Your task to perform on an android device: install app "Move to iOS" Image 0: 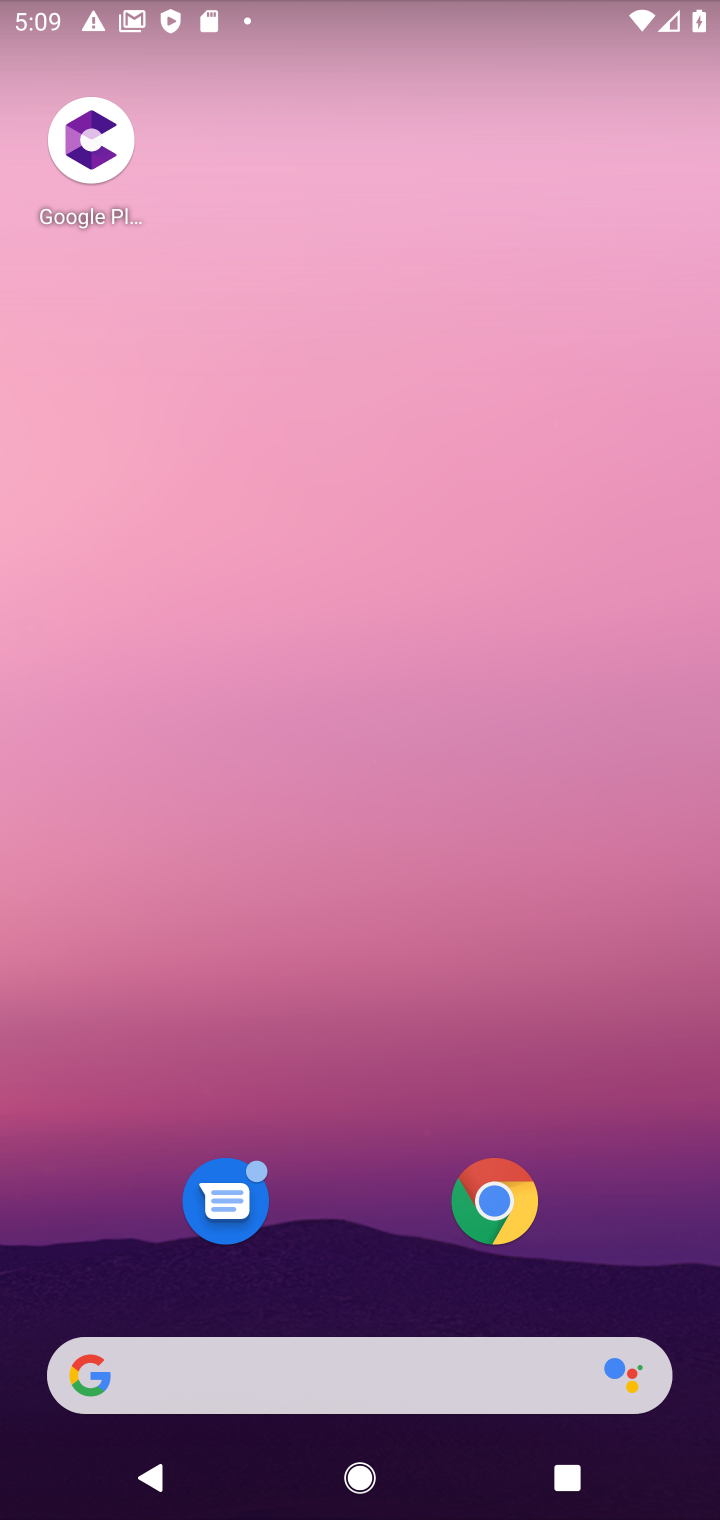
Step 0: drag from (367, 1310) to (405, 181)
Your task to perform on an android device: install app "Move to iOS" Image 1: 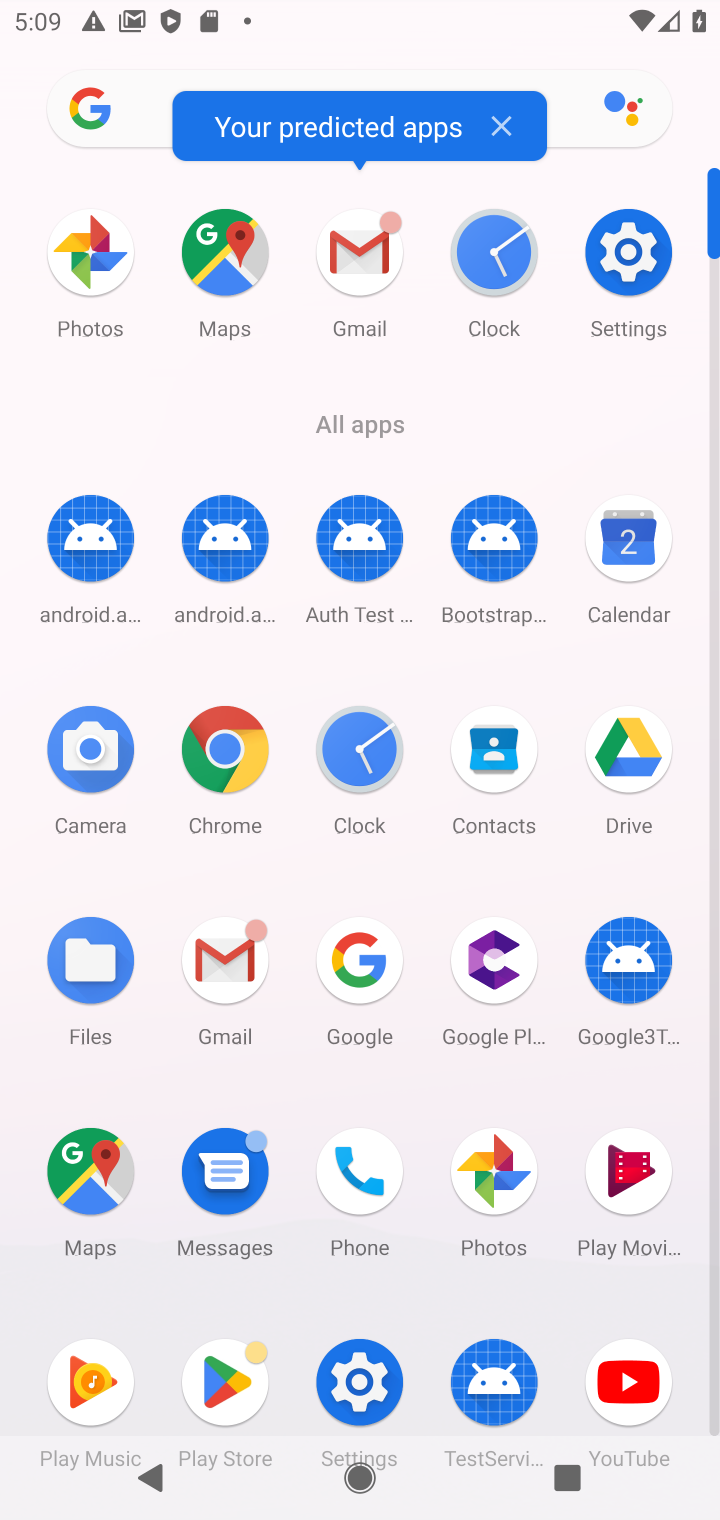
Step 1: click (222, 1385)
Your task to perform on an android device: install app "Move to iOS" Image 2: 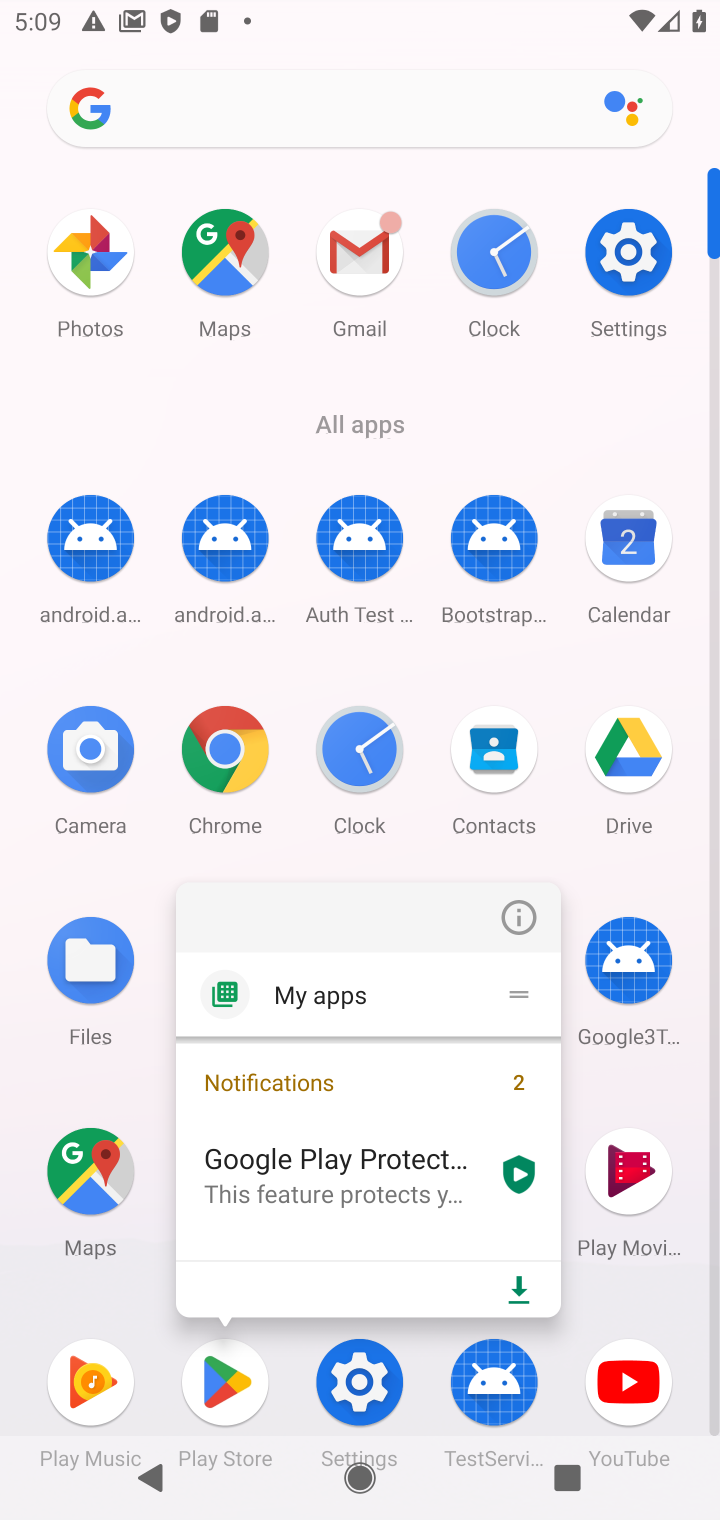
Step 2: click (224, 1402)
Your task to perform on an android device: install app "Move to iOS" Image 3: 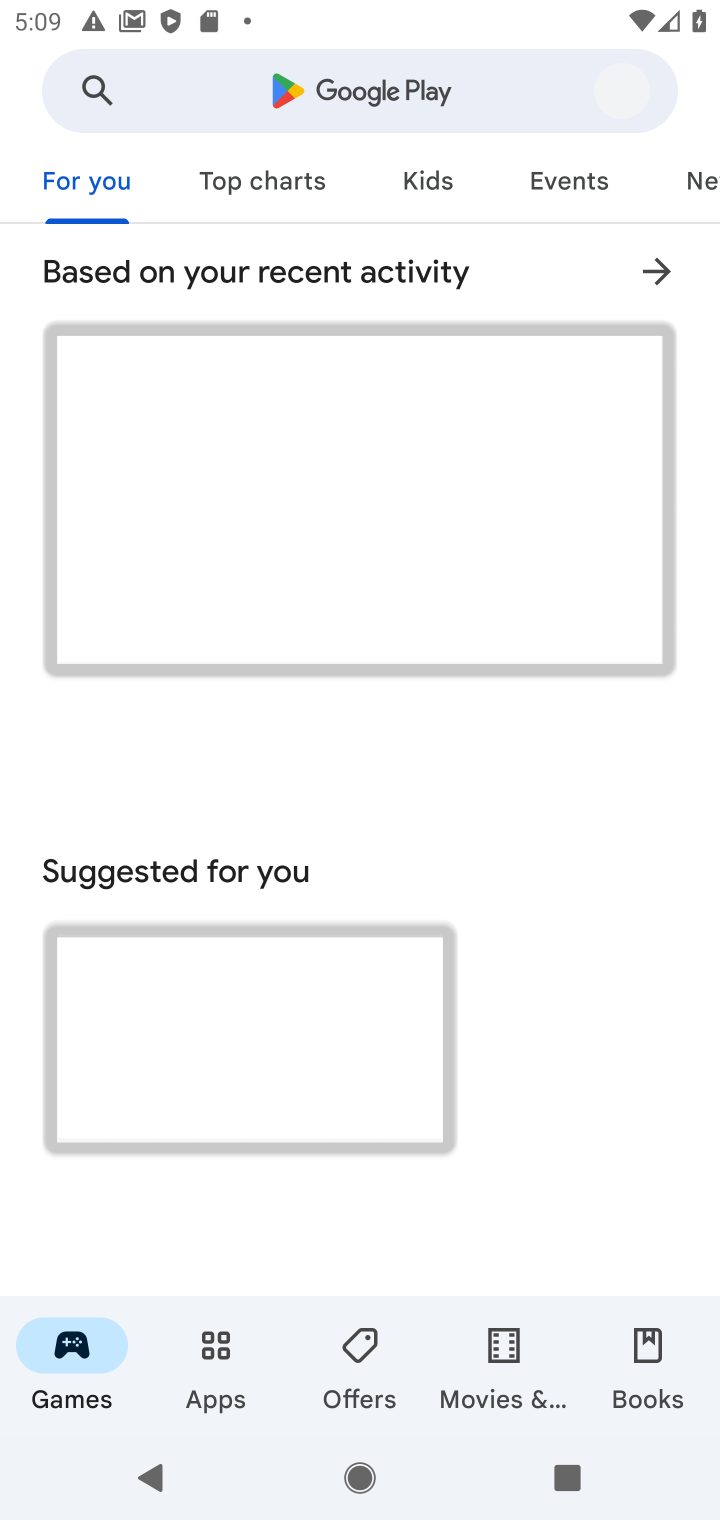
Step 3: click (368, 78)
Your task to perform on an android device: install app "Move to iOS" Image 4: 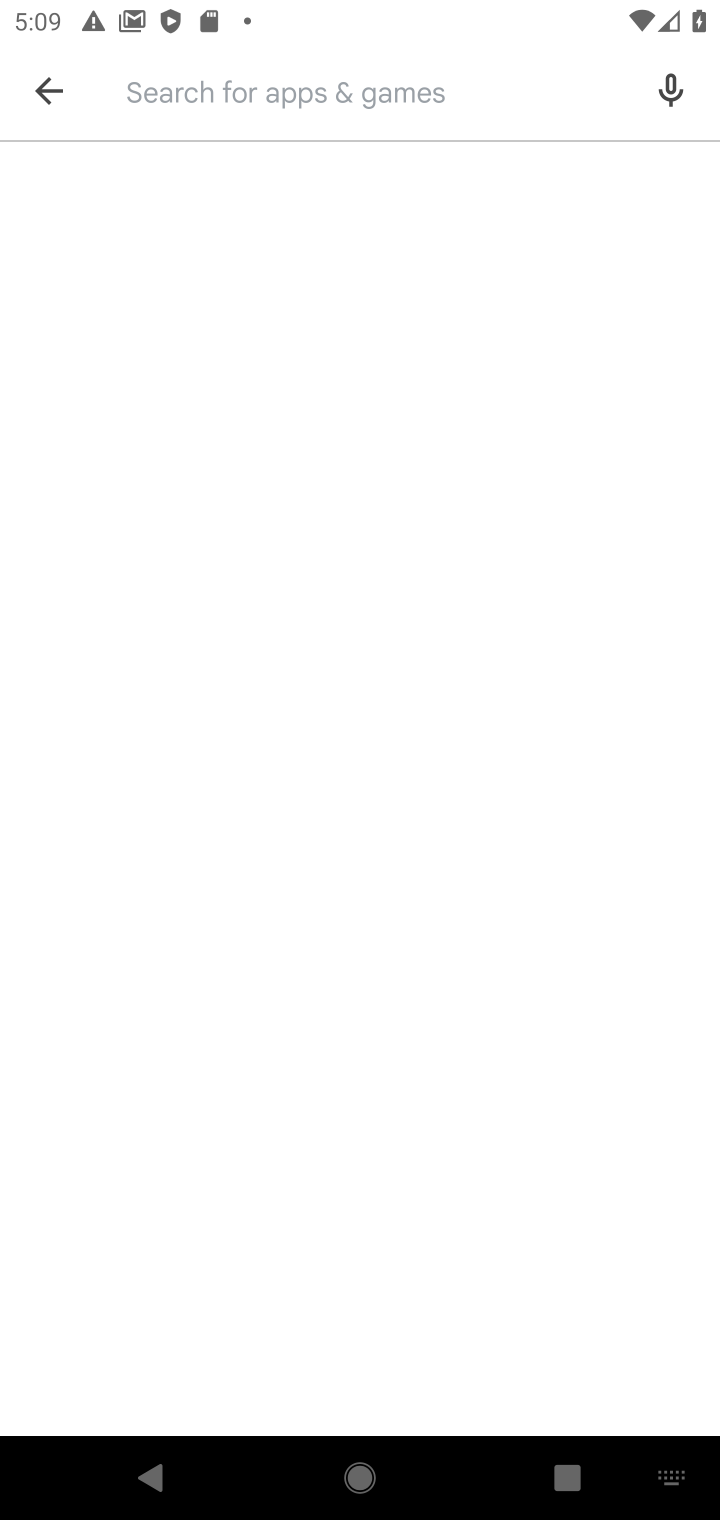
Step 4: type "Move to iOS"
Your task to perform on an android device: install app "Move to iOS" Image 5: 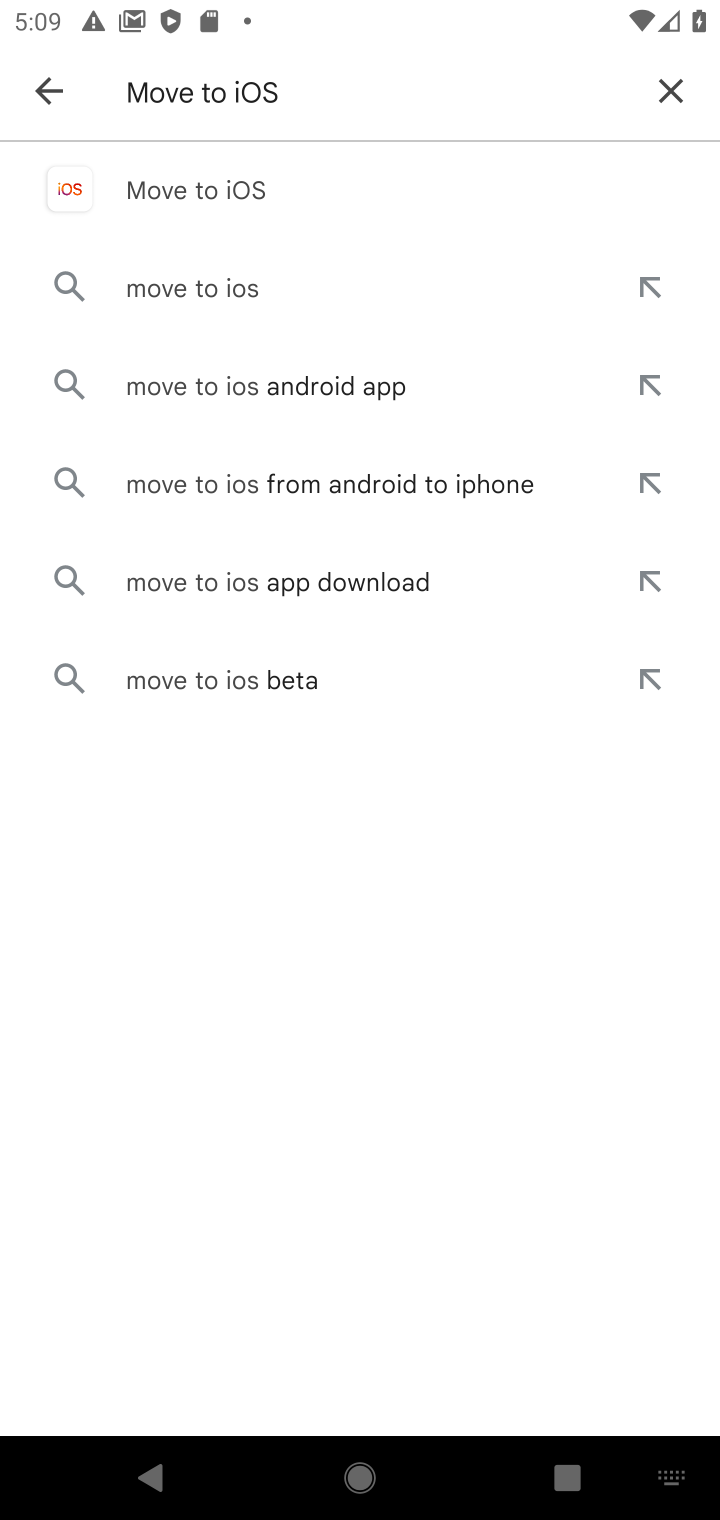
Step 5: click (258, 190)
Your task to perform on an android device: install app "Move to iOS" Image 6: 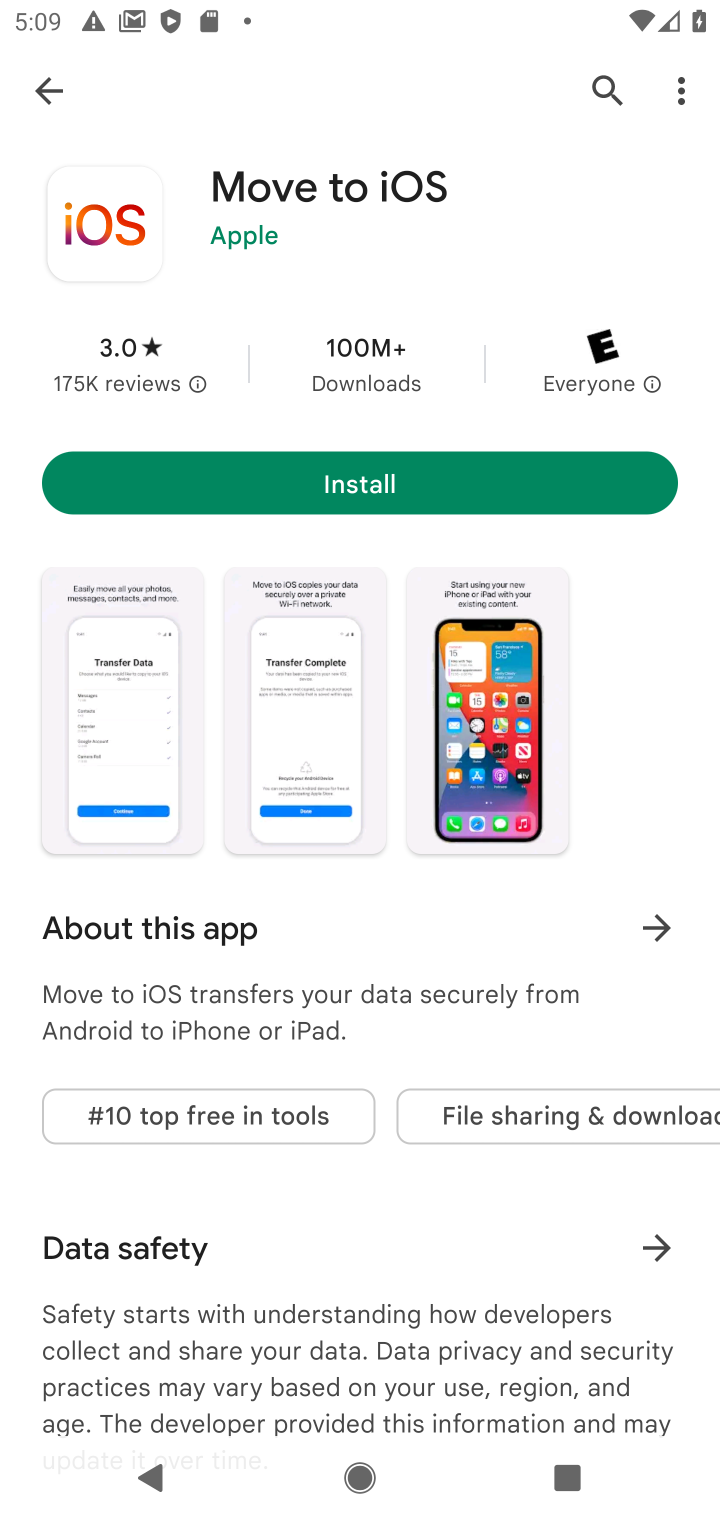
Step 6: click (356, 495)
Your task to perform on an android device: install app "Move to iOS" Image 7: 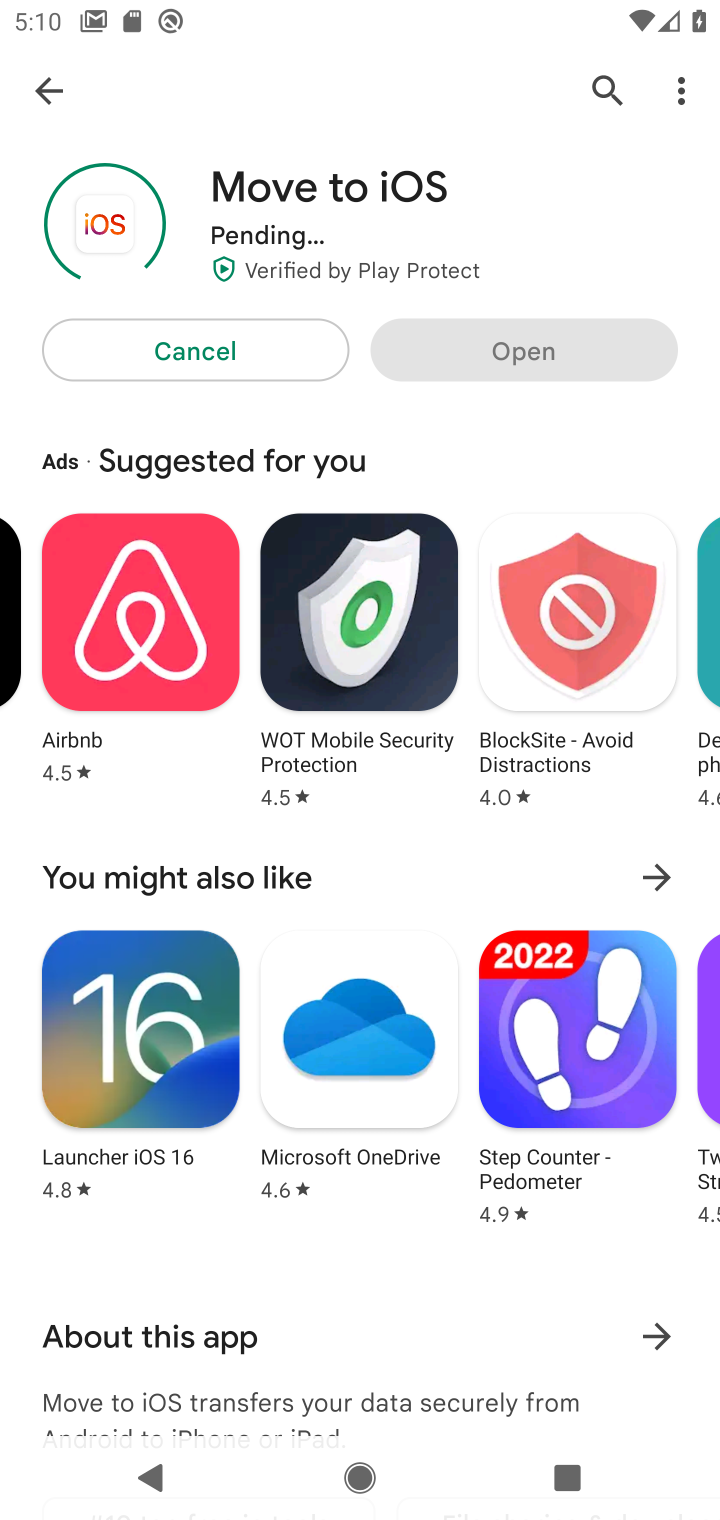
Step 7: click (67, 75)
Your task to perform on an android device: install app "Move to iOS" Image 8: 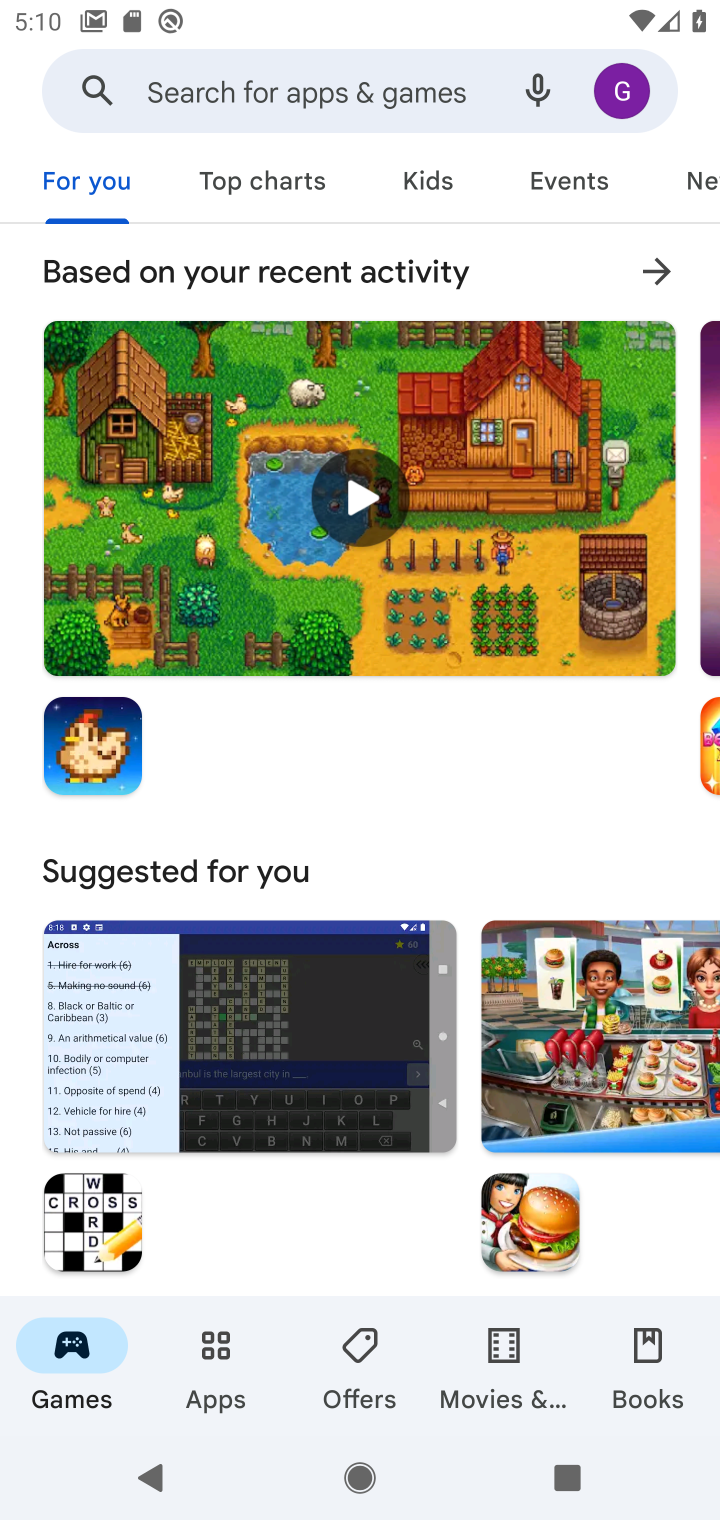
Step 8: click (627, 107)
Your task to perform on an android device: install app "Move to iOS" Image 9: 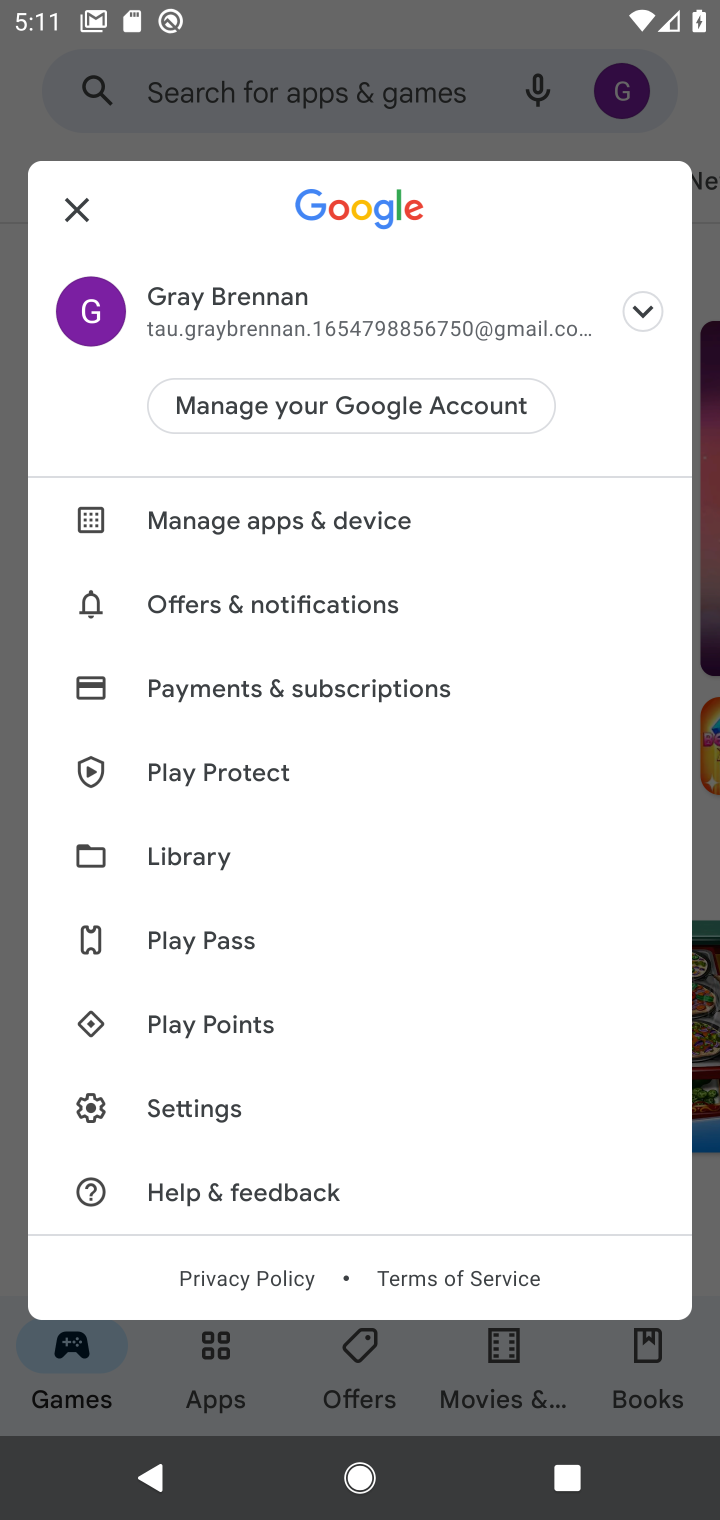
Step 9: click (385, 518)
Your task to perform on an android device: install app "Move to iOS" Image 10: 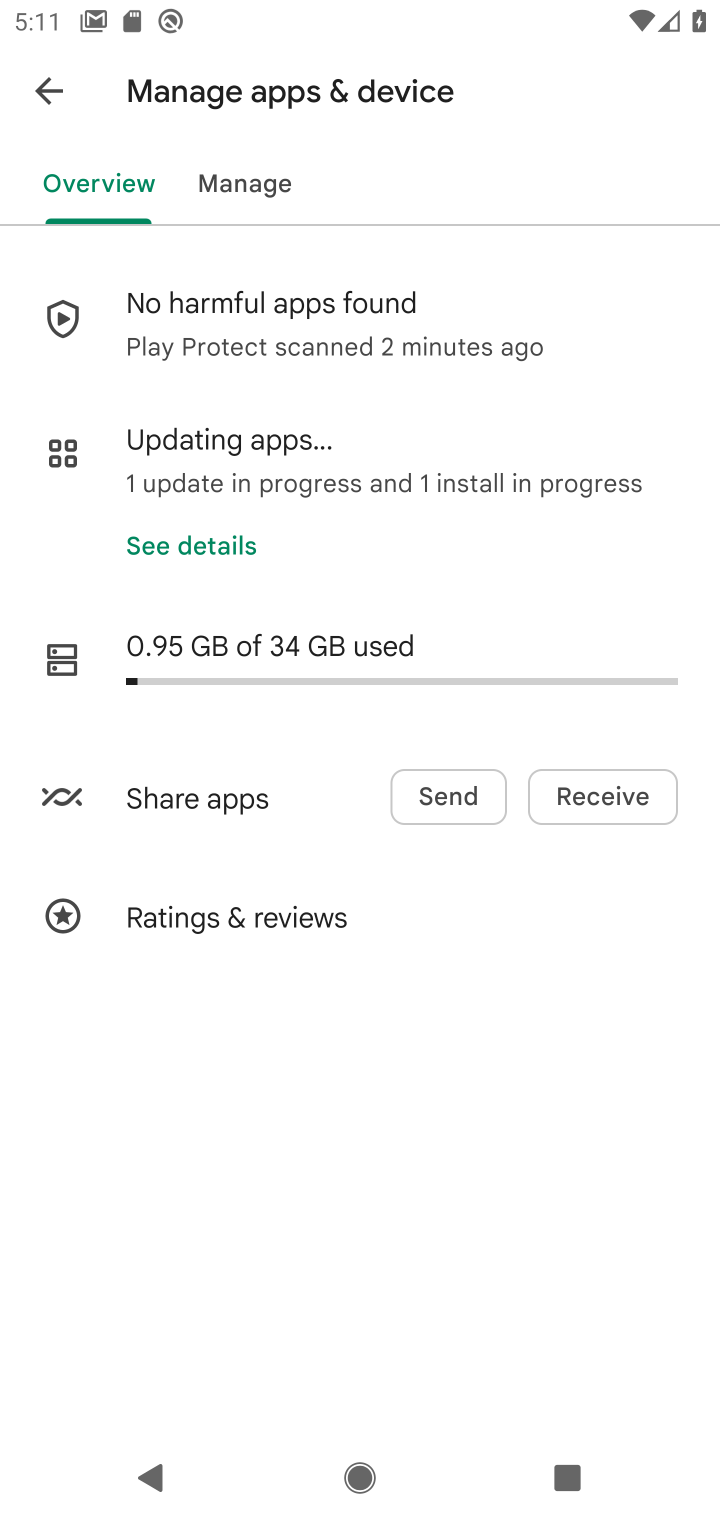
Step 10: click (360, 459)
Your task to perform on an android device: install app "Move to iOS" Image 11: 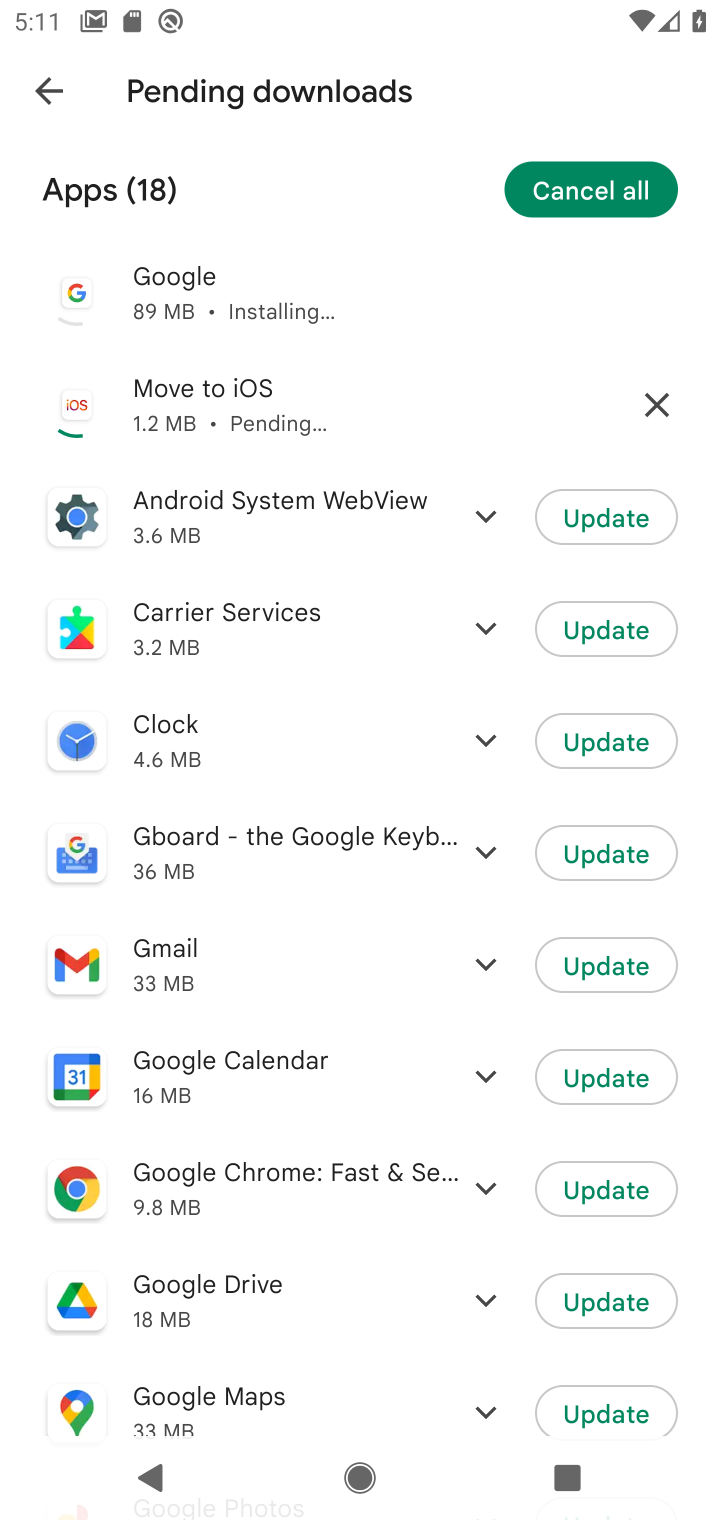
Step 11: click (259, 286)
Your task to perform on an android device: install app "Move to iOS" Image 12: 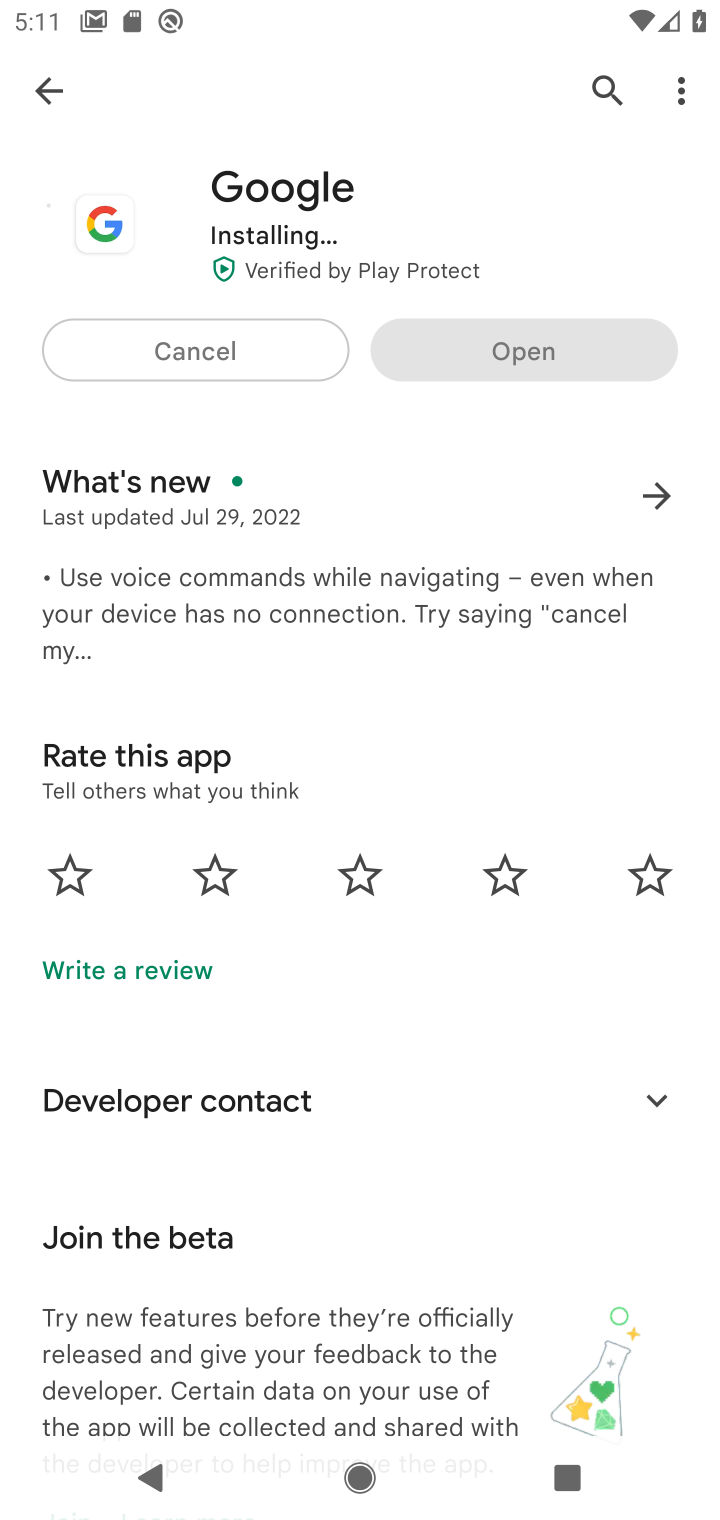
Step 12: click (60, 94)
Your task to perform on an android device: install app "Move to iOS" Image 13: 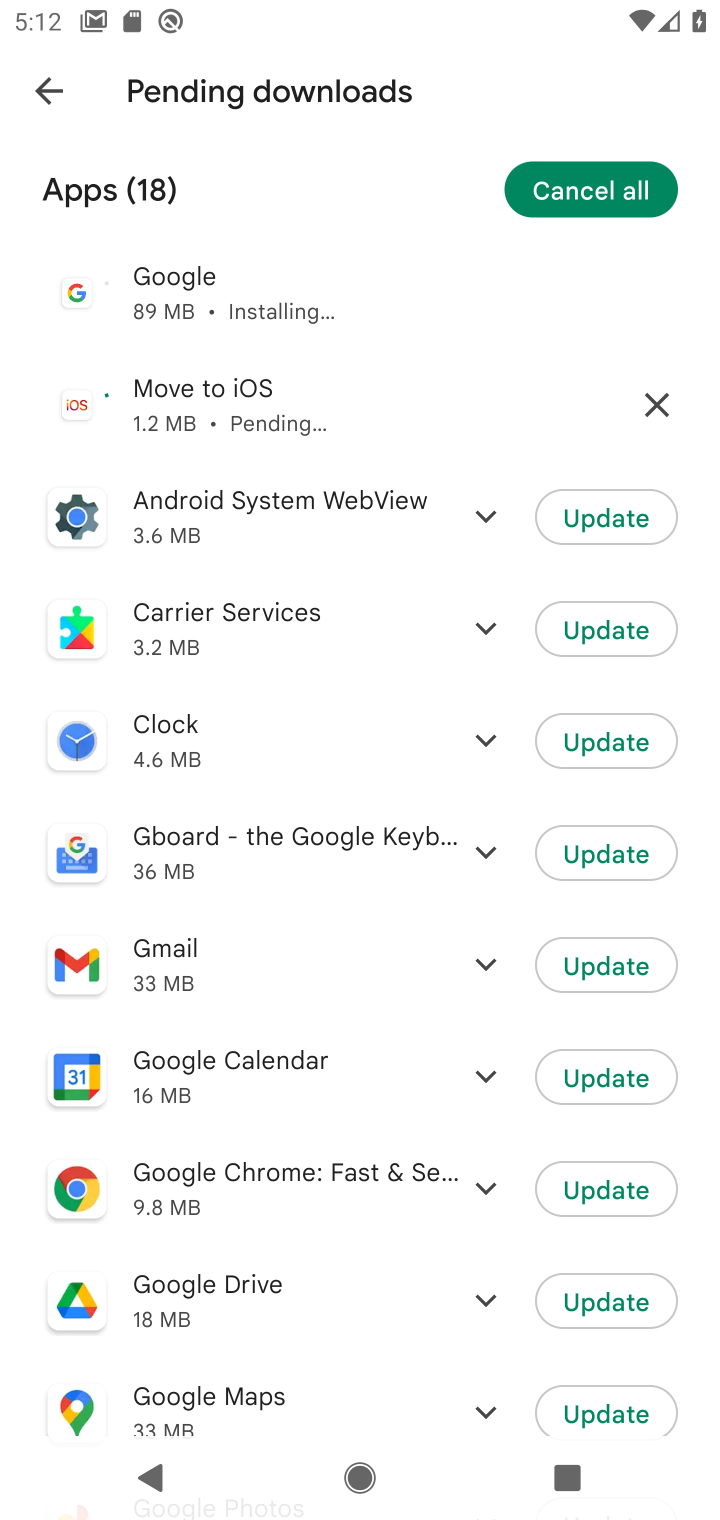
Step 13: click (162, 273)
Your task to perform on an android device: install app "Move to iOS" Image 14: 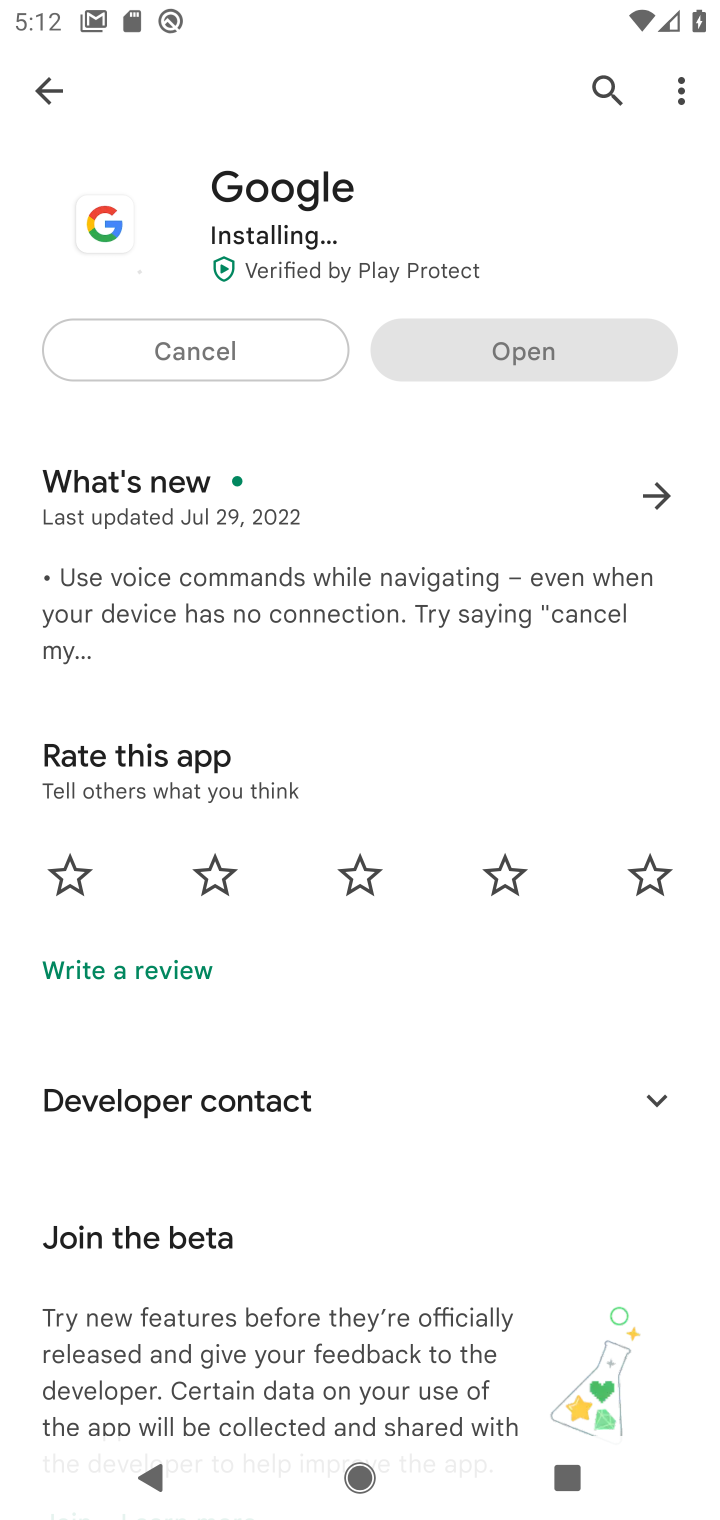
Step 14: click (163, 347)
Your task to perform on an android device: install app "Move to iOS" Image 15: 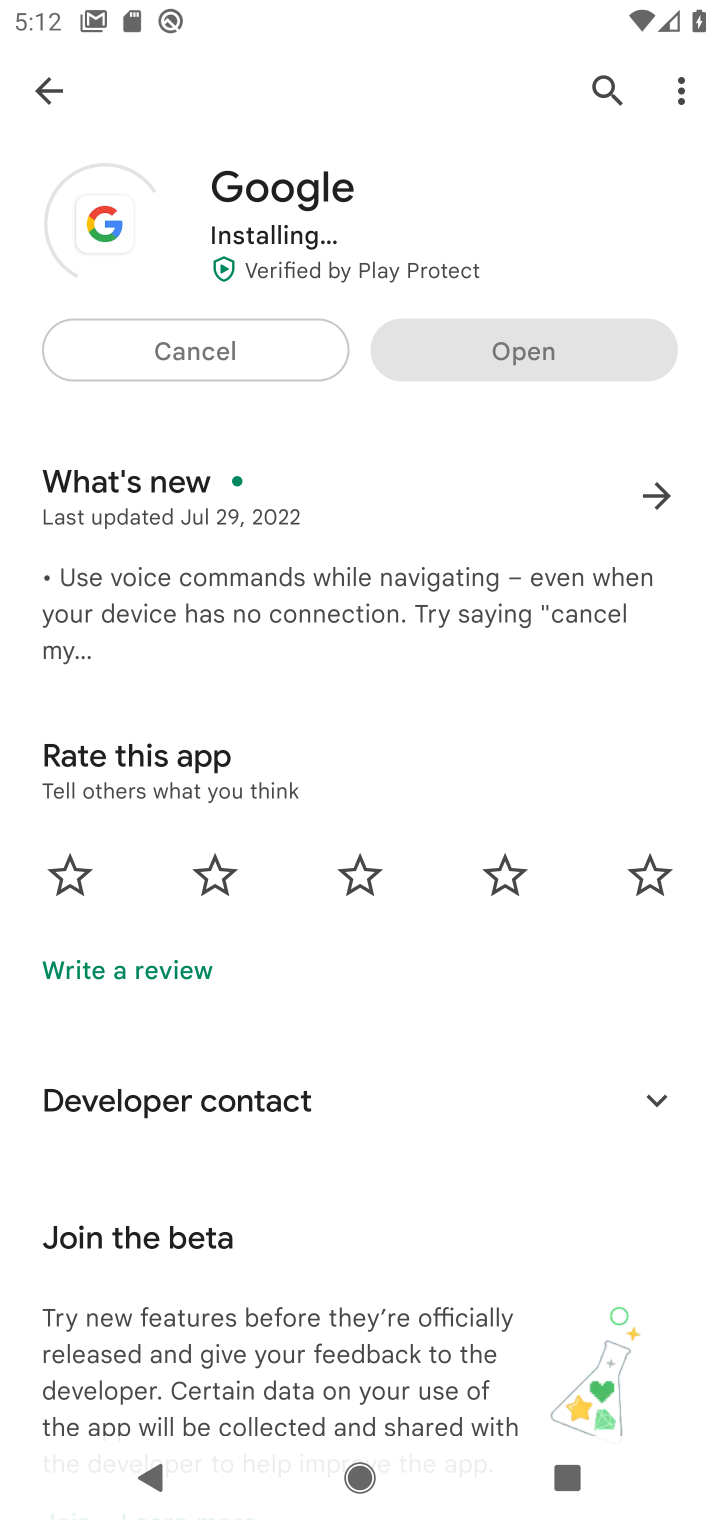
Step 15: click (182, 337)
Your task to perform on an android device: install app "Move to iOS" Image 16: 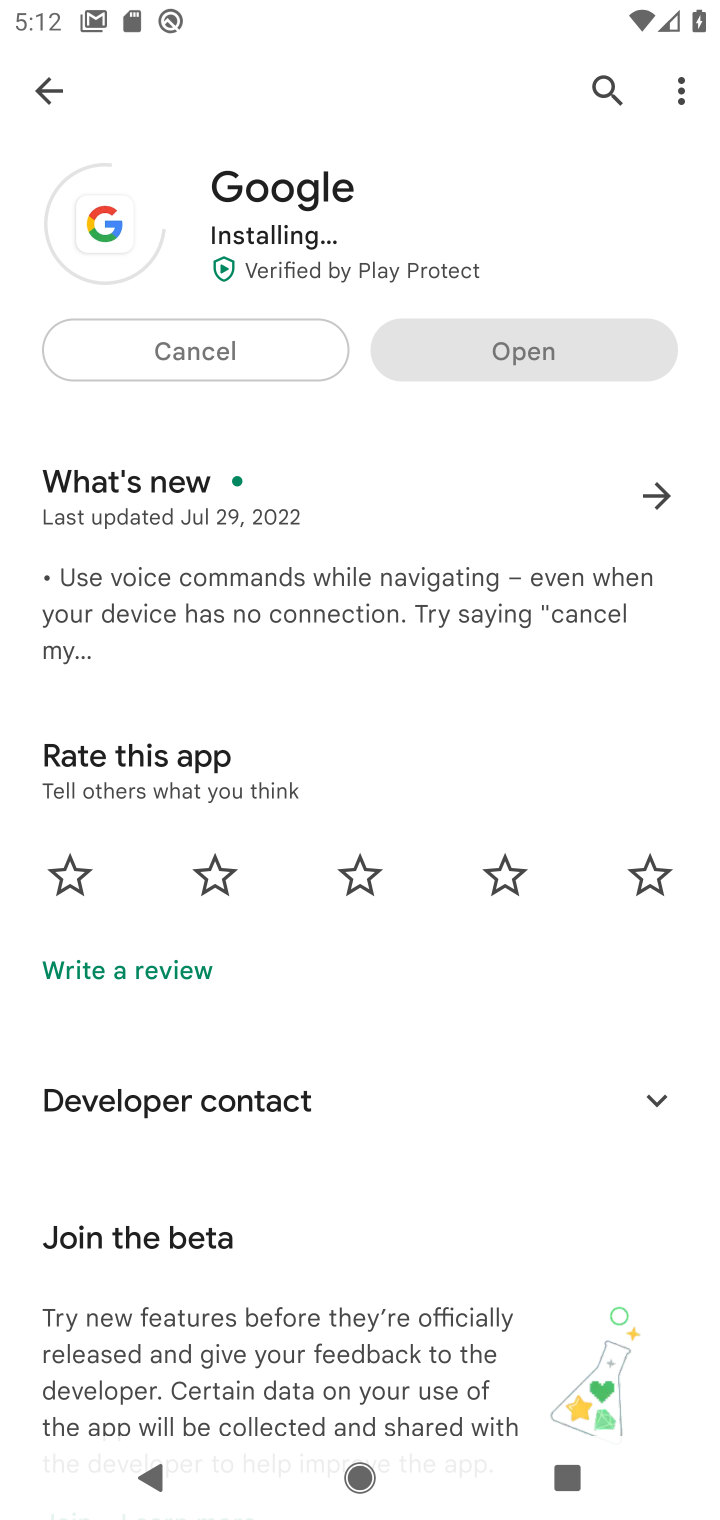
Step 16: click (182, 337)
Your task to perform on an android device: install app "Move to iOS" Image 17: 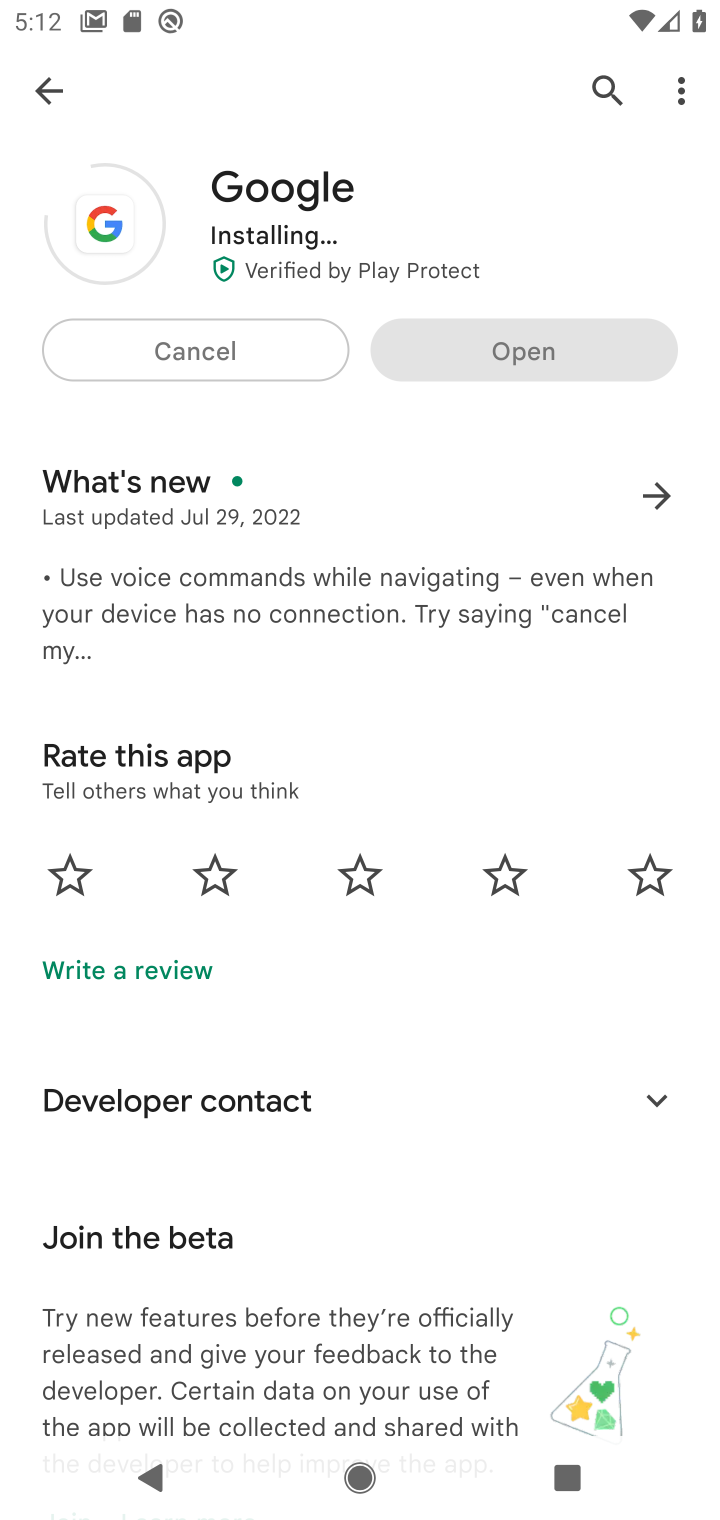
Step 17: click (36, 91)
Your task to perform on an android device: install app "Move to iOS" Image 18: 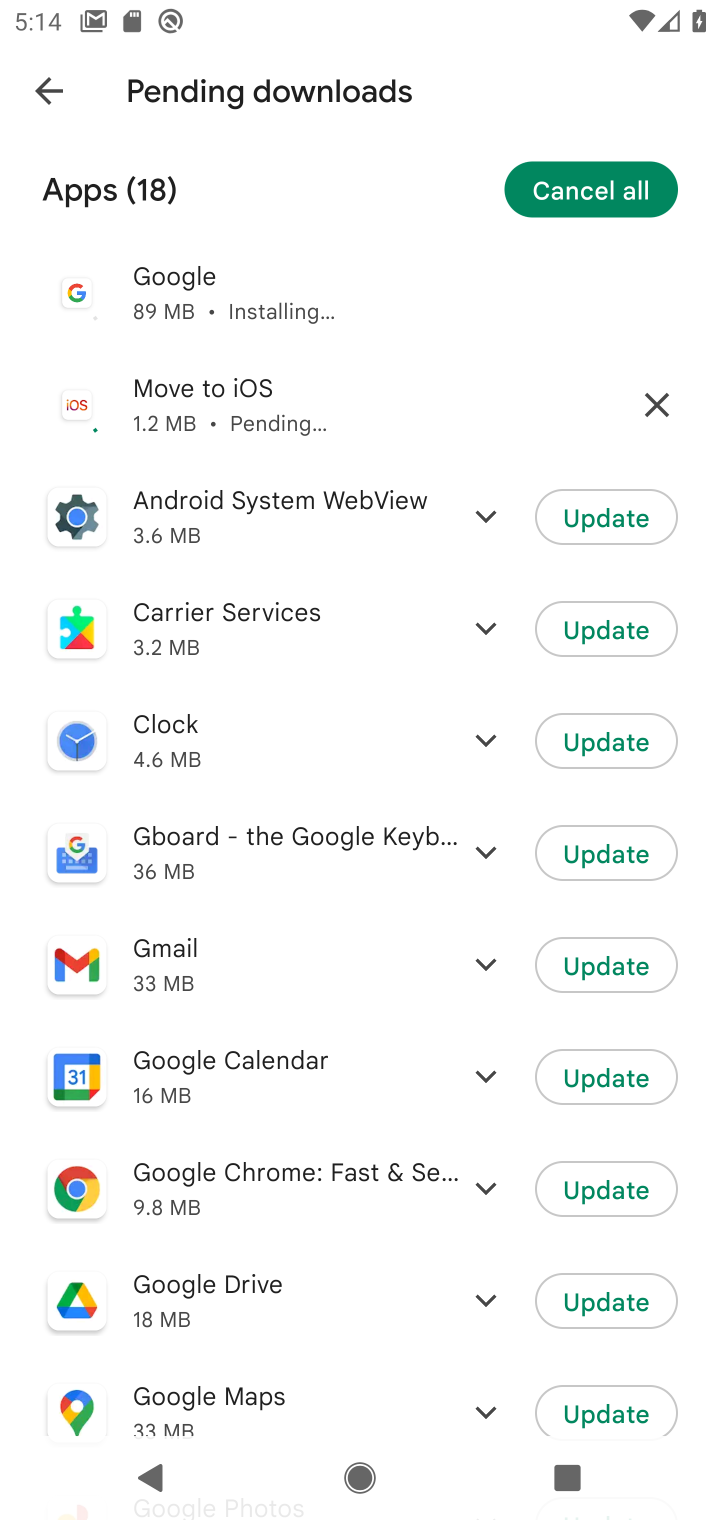
Step 18: click (178, 378)
Your task to perform on an android device: install app "Move to iOS" Image 19: 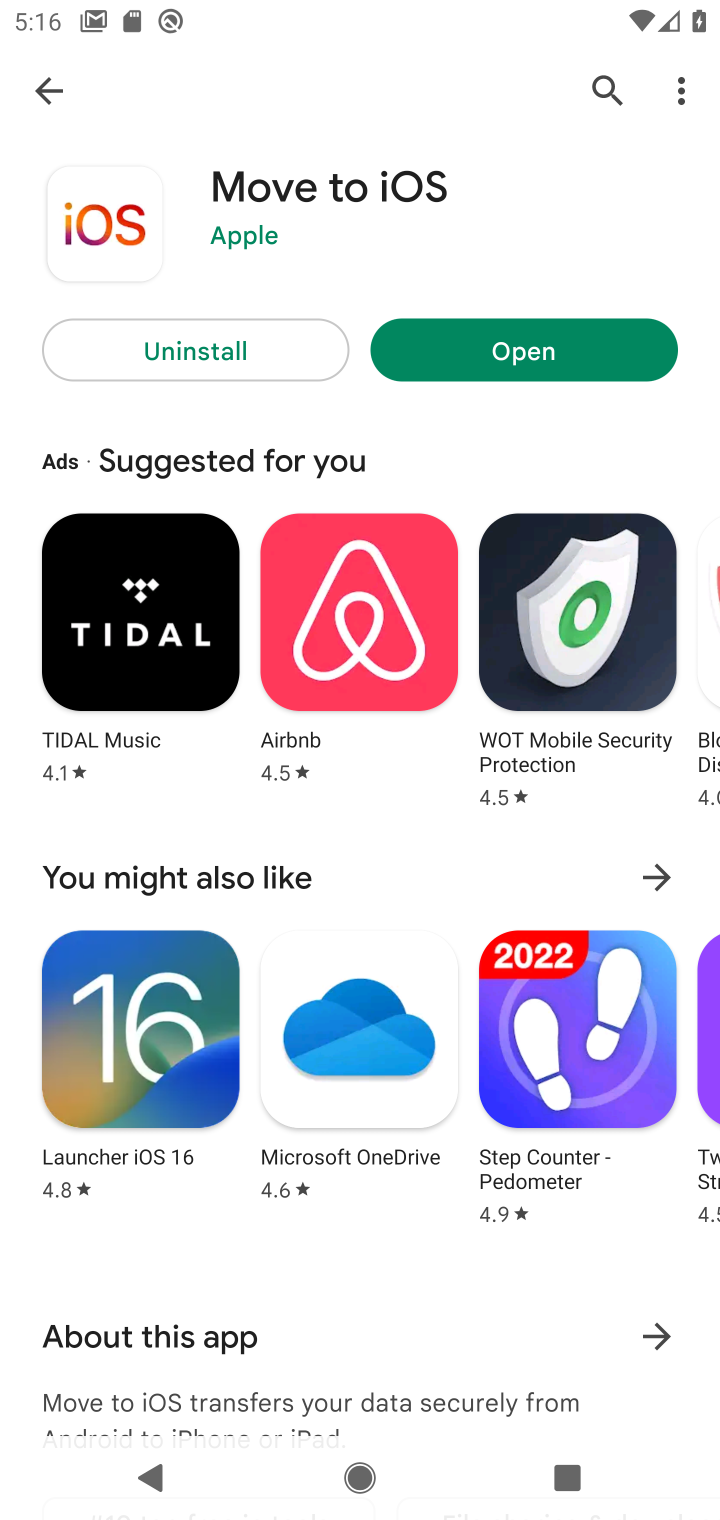
Step 19: task complete